Your task to perform on an android device: Open Chrome and go to settings Image 0: 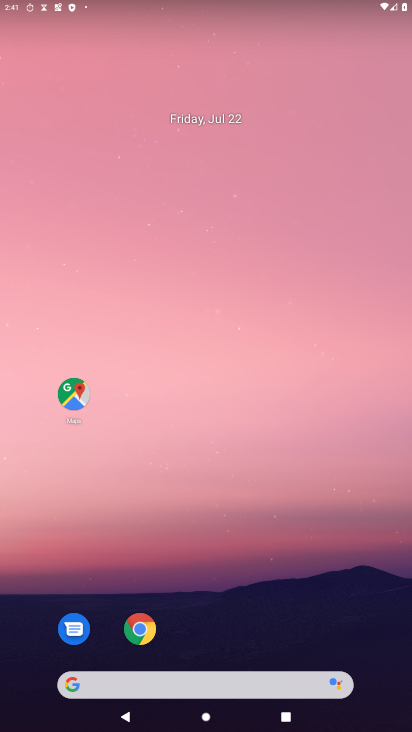
Step 0: drag from (220, 641) to (229, 93)
Your task to perform on an android device: Open Chrome and go to settings Image 1: 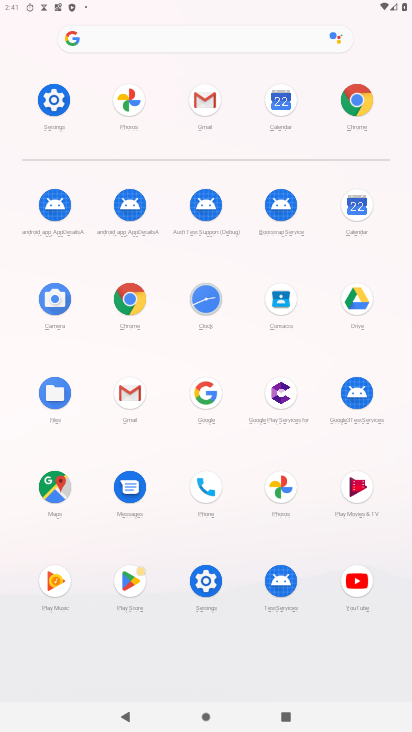
Step 1: click (123, 298)
Your task to perform on an android device: Open Chrome and go to settings Image 2: 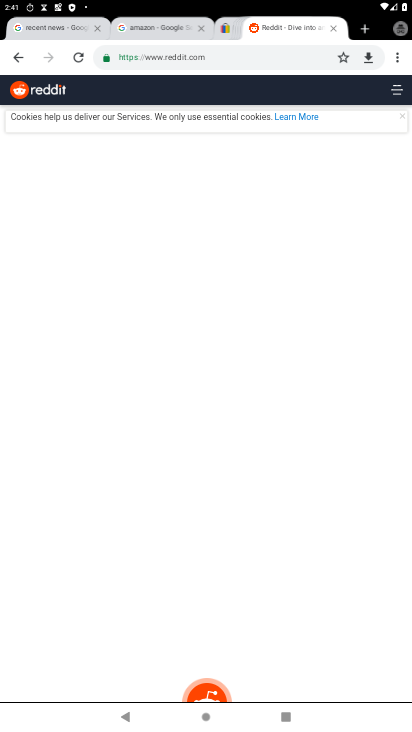
Step 2: task complete